Your task to perform on an android device: clear history in the chrome app Image 0: 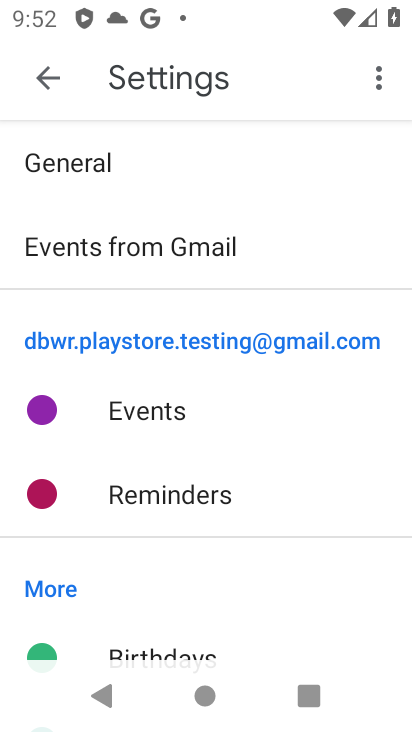
Step 0: press home button
Your task to perform on an android device: clear history in the chrome app Image 1: 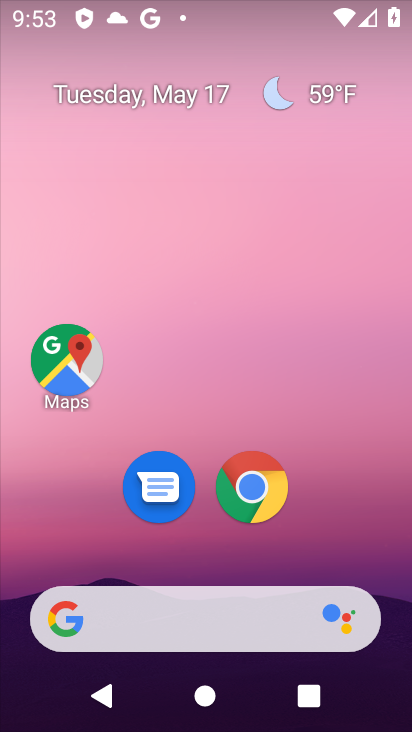
Step 1: click (255, 487)
Your task to perform on an android device: clear history in the chrome app Image 2: 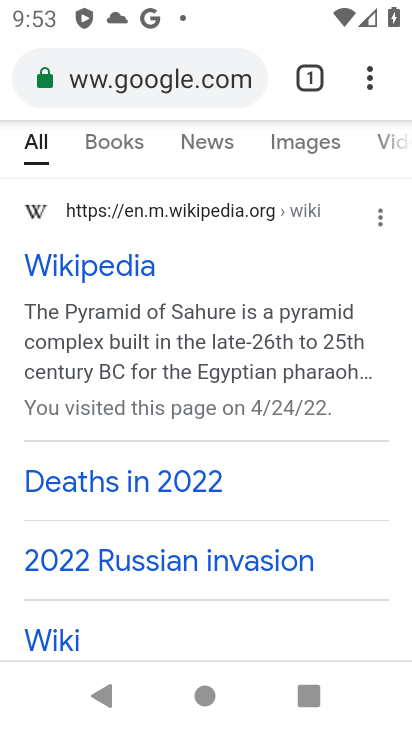
Step 2: click (368, 82)
Your task to perform on an android device: clear history in the chrome app Image 3: 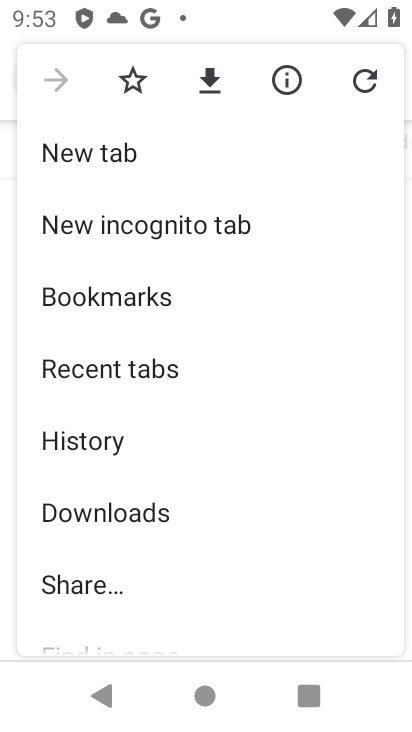
Step 3: click (90, 433)
Your task to perform on an android device: clear history in the chrome app Image 4: 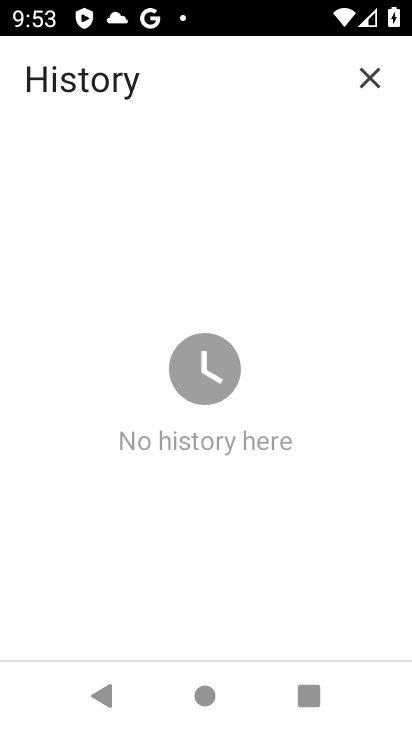
Step 4: task complete